Your task to perform on an android device: What's the weather? Image 0: 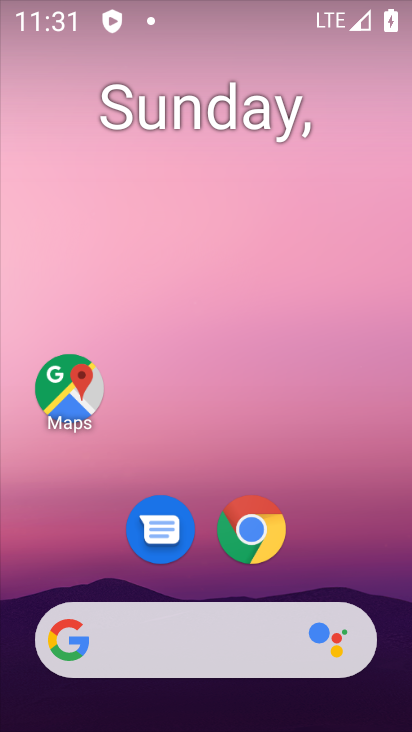
Step 0: drag from (341, 557) to (295, 114)
Your task to perform on an android device: What's the weather? Image 1: 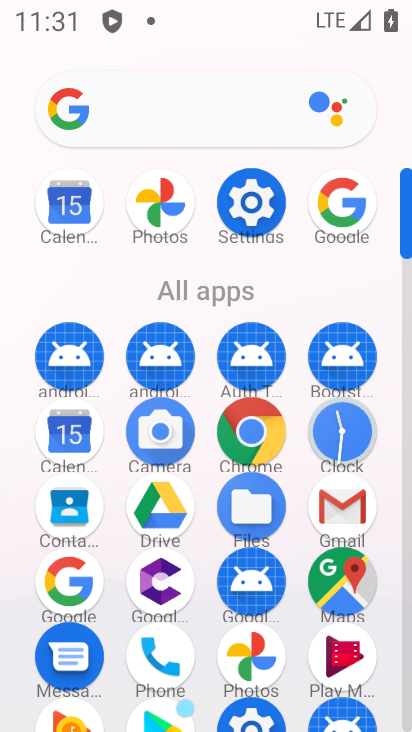
Step 1: click (63, 582)
Your task to perform on an android device: What's the weather? Image 2: 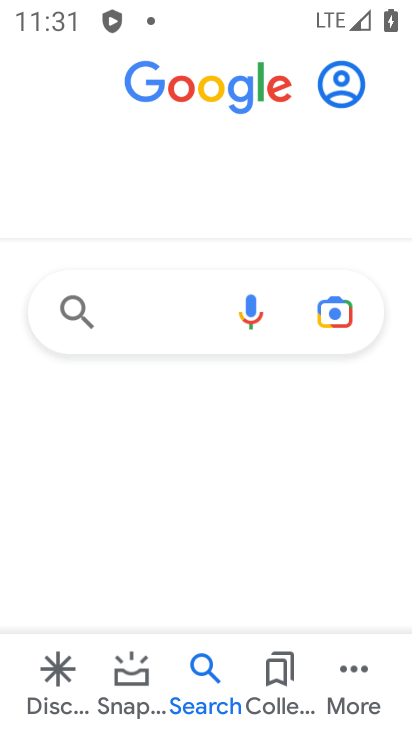
Step 2: click (164, 297)
Your task to perform on an android device: What's the weather? Image 3: 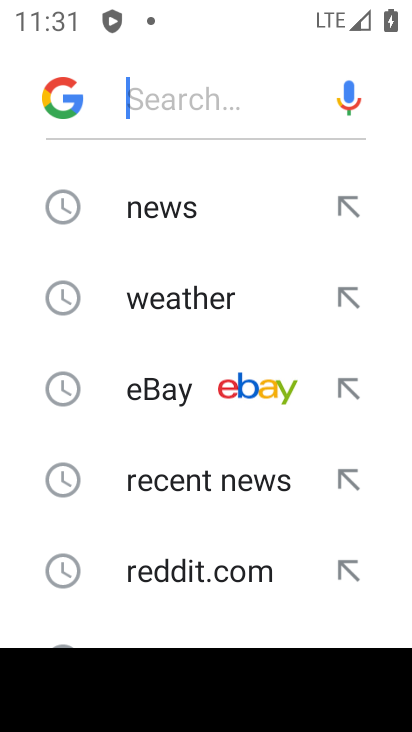
Step 3: click (172, 308)
Your task to perform on an android device: What's the weather? Image 4: 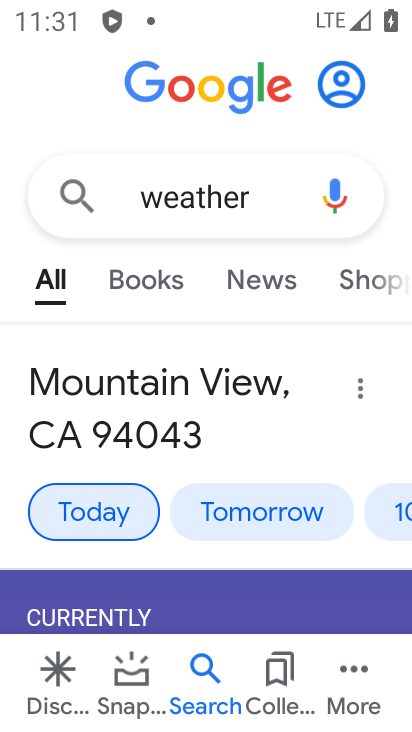
Step 4: task complete